Your task to perform on an android device: turn on showing notifications on the lock screen Image 0: 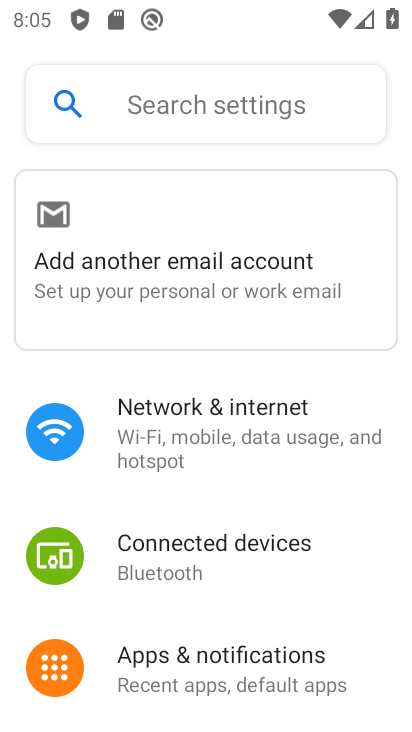
Step 0: click (299, 667)
Your task to perform on an android device: turn on showing notifications on the lock screen Image 1: 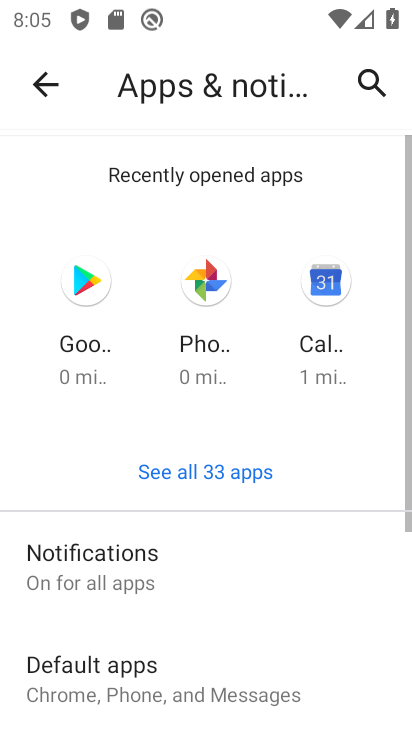
Step 1: drag from (299, 667) to (269, 255)
Your task to perform on an android device: turn on showing notifications on the lock screen Image 2: 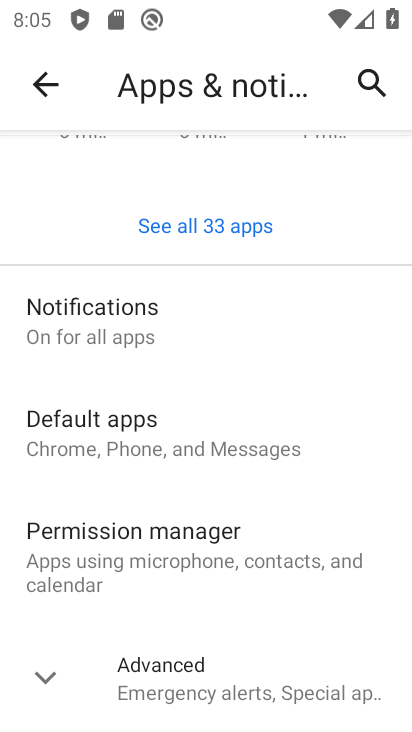
Step 2: click (289, 301)
Your task to perform on an android device: turn on showing notifications on the lock screen Image 3: 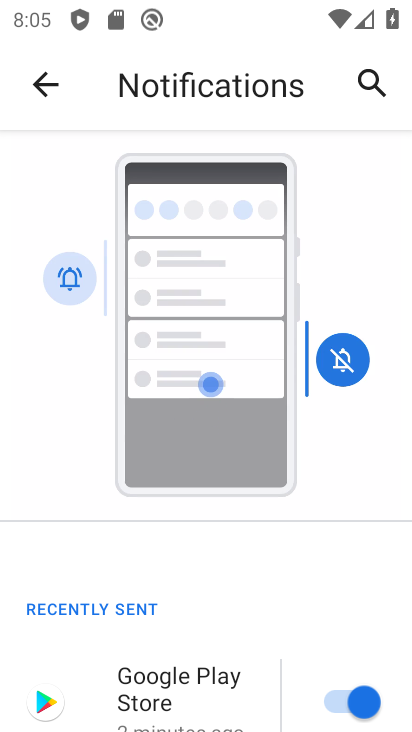
Step 3: drag from (212, 561) to (186, 262)
Your task to perform on an android device: turn on showing notifications on the lock screen Image 4: 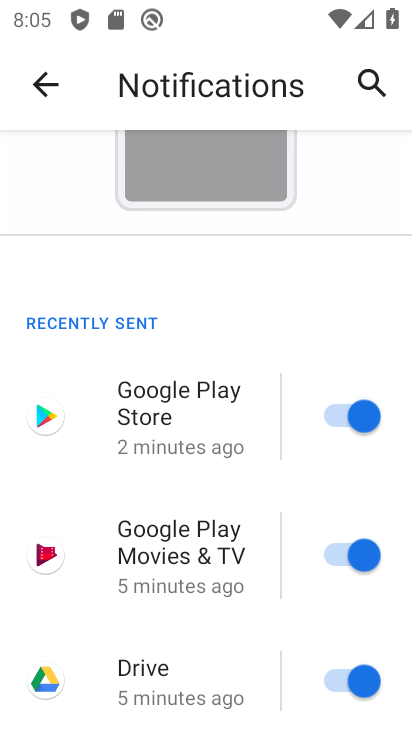
Step 4: drag from (220, 675) to (240, 275)
Your task to perform on an android device: turn on showing notifications on the lock screen Image 5: 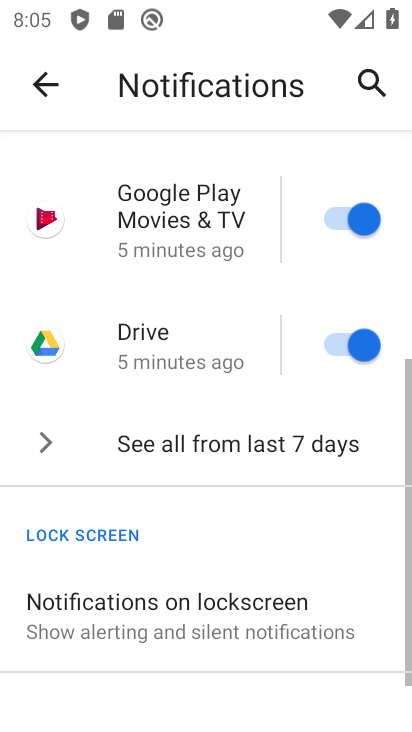
Step 5: drag from (240, 275) to (249, 55)
Your task to perform on an android device: turn on showing notifications on the lock screen Image 6: 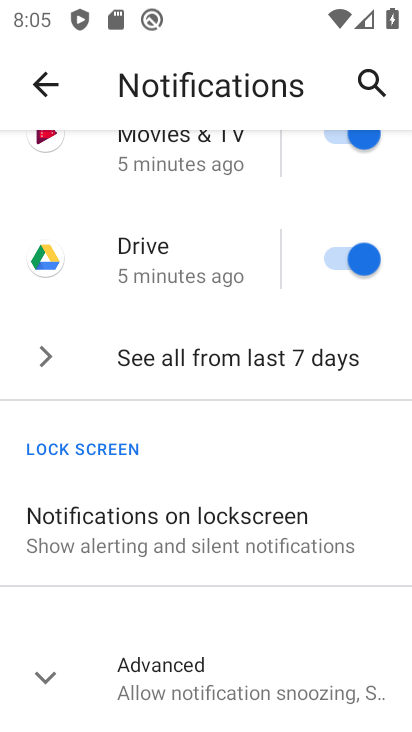
Step 6: click (222, 535)
Your task to perform on an android device: turn on showing notifications on the lock screen Image 7: 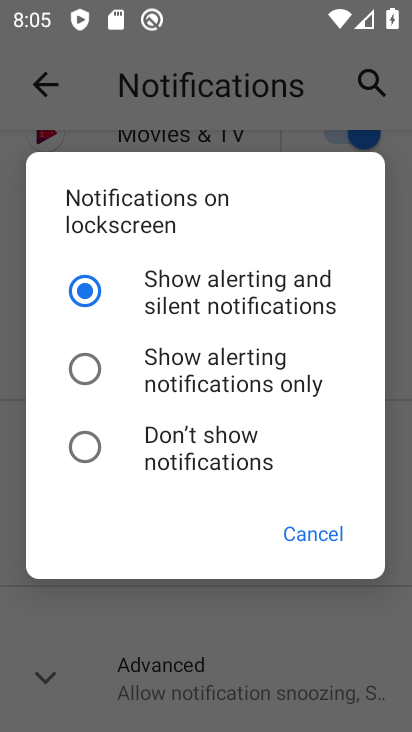
Step 7: task complete